Your task to perform on an android device: set the stopwatch Image 0: 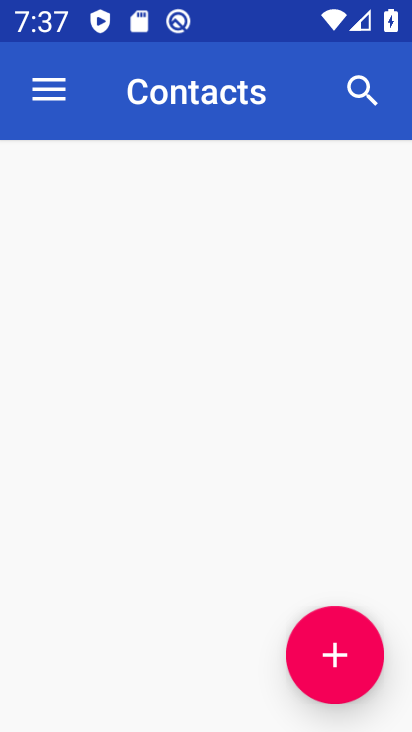
Step 0: press back button
Your task to perform on an android device: set the stopwatch Image 1: 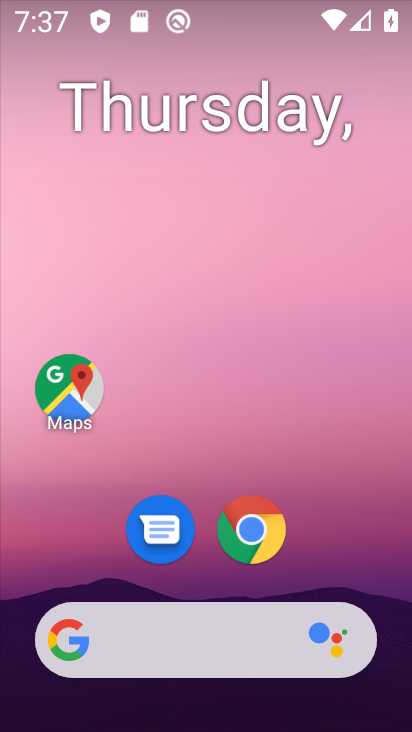
Step 1: drag from (388, 714) to (311, 246)
Your task to perform on an android device: set the stopwatch Image 2: 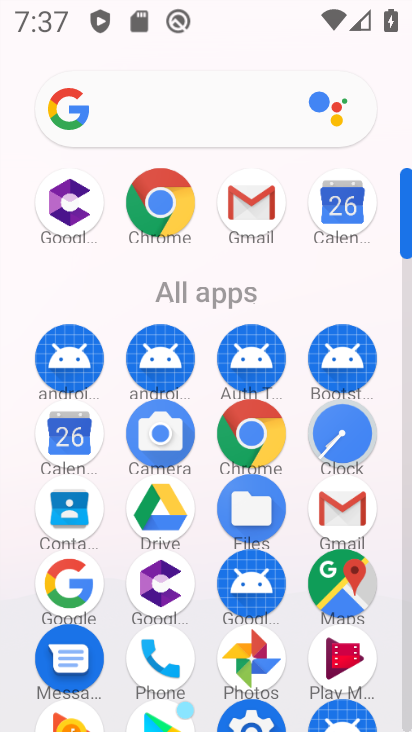
Step 2: click (336, 438)
Your task to perform on an android device: set the stopwatch Image 3: 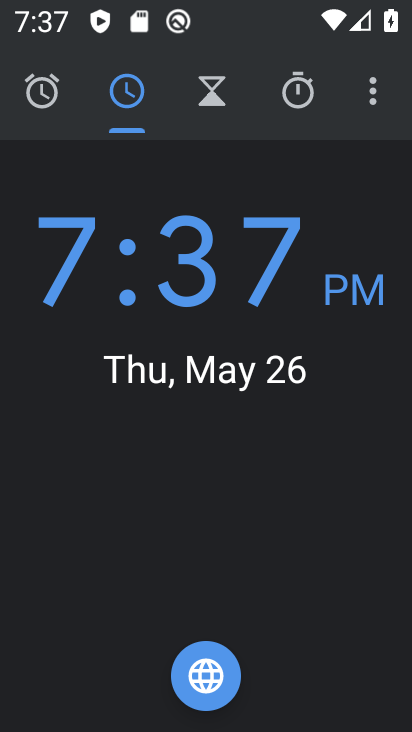
Step 3: click (301, 89)
Your task to perform on an android device: set the stopwatch Image 4: 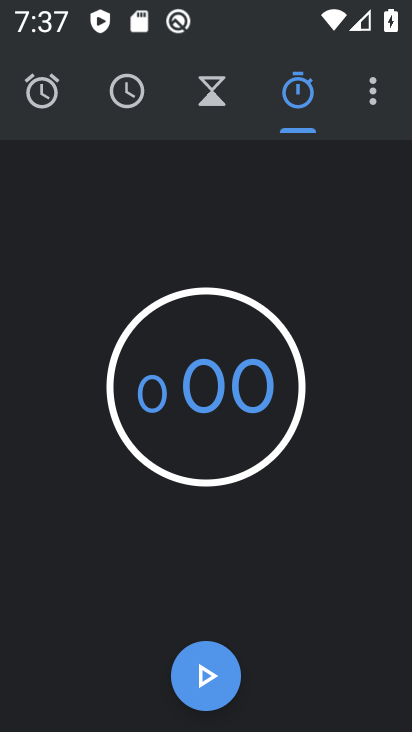
Step 4: click (209, 686)
Your task to perform on an android device: set the stopwatch Image 5: 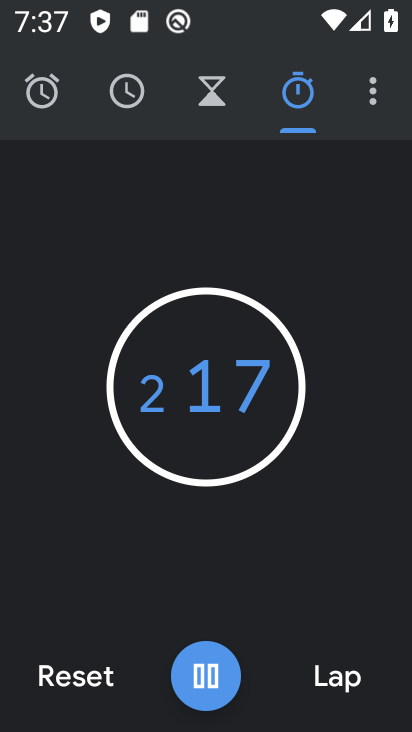
Step 5: task complete